Your task to perform on an android device: Open Chrome and go to the settings page Image 0: 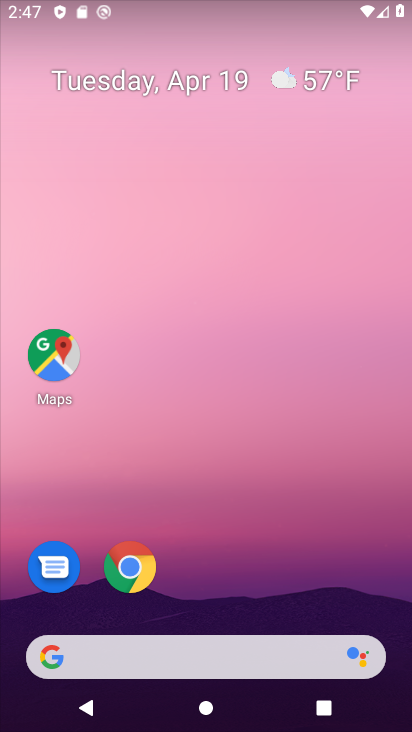
Step 0: drag from (384, 551) to (372, 139)
Your task to perform on an android device: Open Chrome and go to the settings page Image 1: 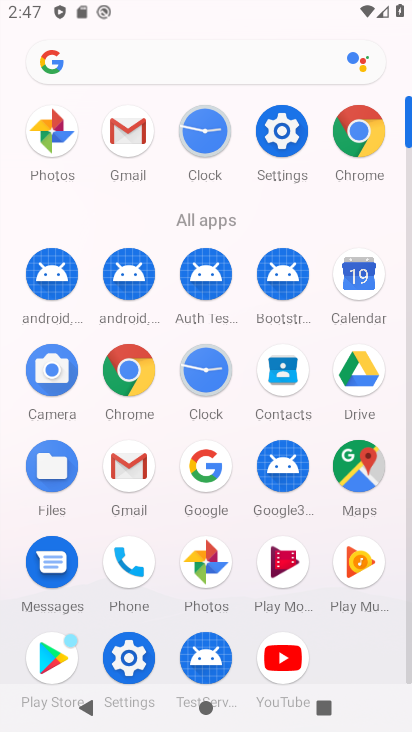
Step 1: click (353, 130)
Your task to perform on an android device: Open Chrome and go to the settings page Image 2: 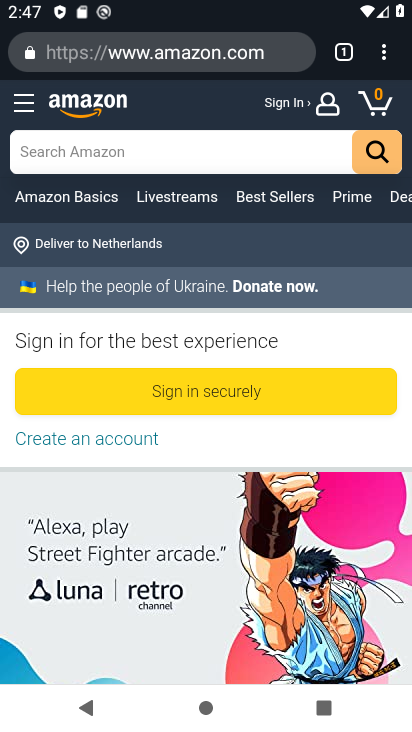
Step 2: click (383, 52)
Your task to perform on an android device: Open Chrome and go to the settings page Image 3: 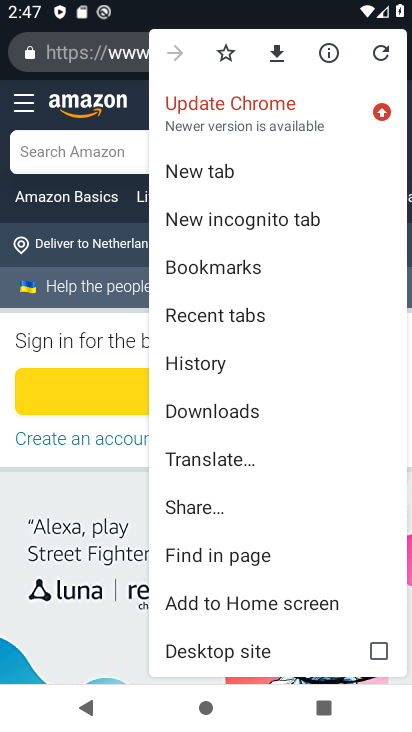
Step 3: drag from (356, 518) to (345, 385)
Your task to perform on an android device: Open Chrome and go to the settings page Image 4: 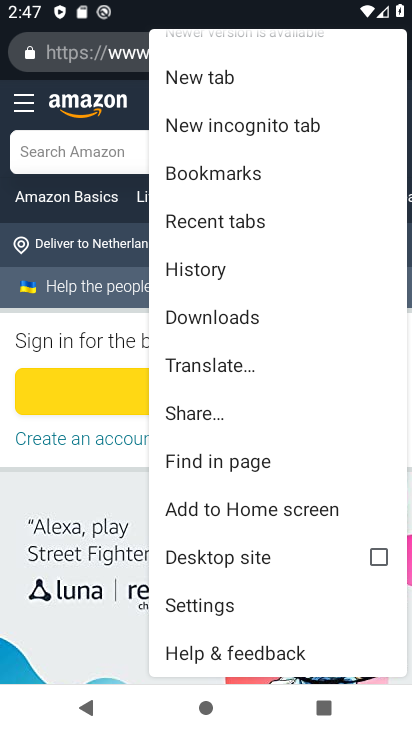
Step 4: click (217, 607)
Your task to perform on an android device: Open Chrome and go to the settings page Image 5: 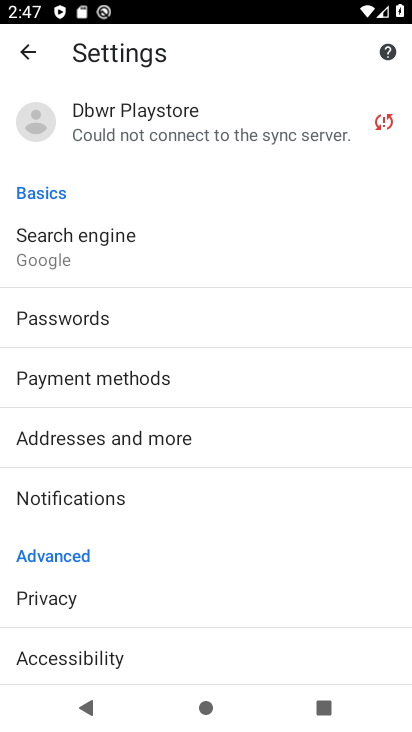
Step 5: task complete